Your task to perform on an android device: Show me the alarms in the clock app Image 0: 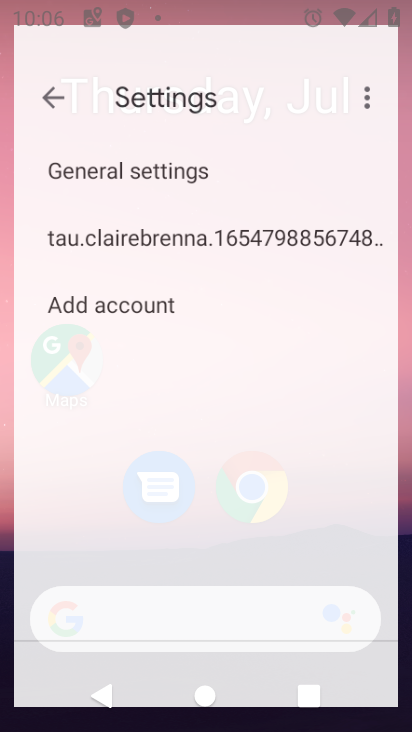
Step 0: drag from (239, 673) to (286, 246)
Your task to perform on an android device: Show me the alarms in the clock app Image 1: 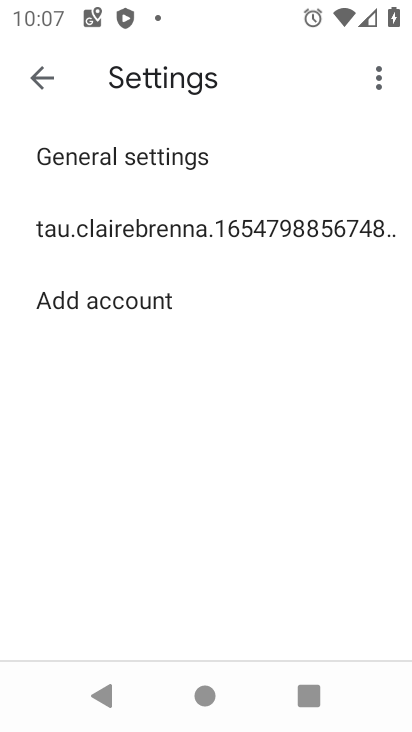
Step 1: press home button
Your task to perform on an android device: Show me the alarms in the clock app Image 2: 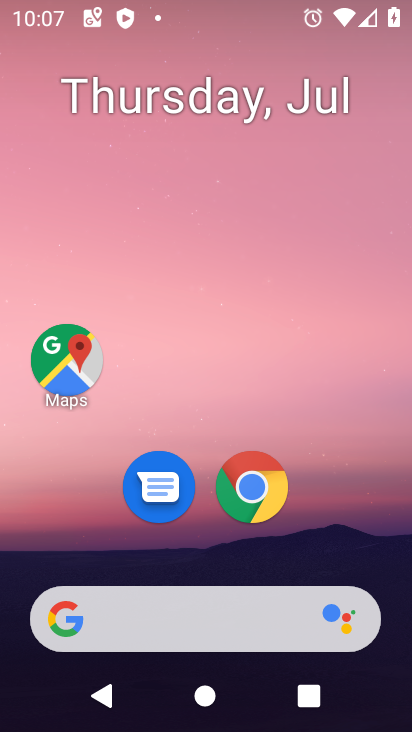
Step 2: drag from (222, 623) to (251, 295)
Your task to perform on an android device: Show me the alarms in the clock app Image 3: 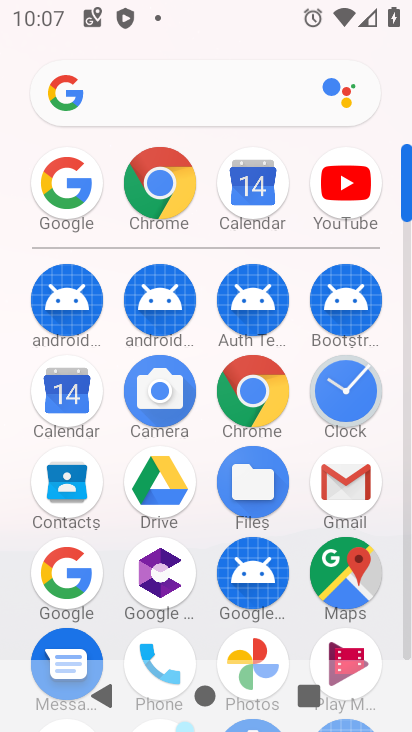
Step 3: click (358, 420)
Your task to perform on an android device: Show me the alarms in the clock app Image 4: 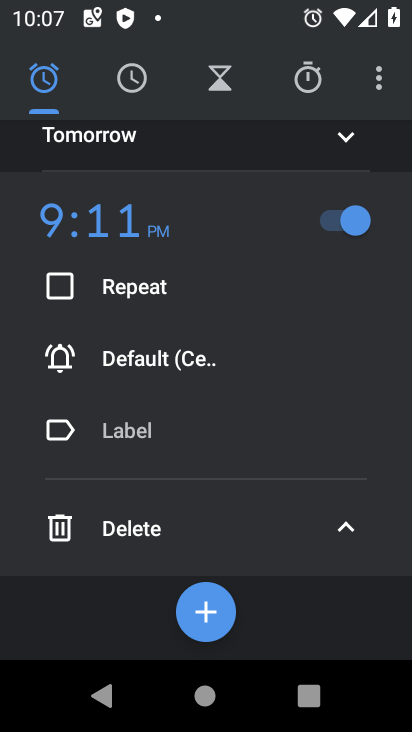
Step 4: task complete